Your task to perform on an android device: snooze an email in the gmail app Image 0: 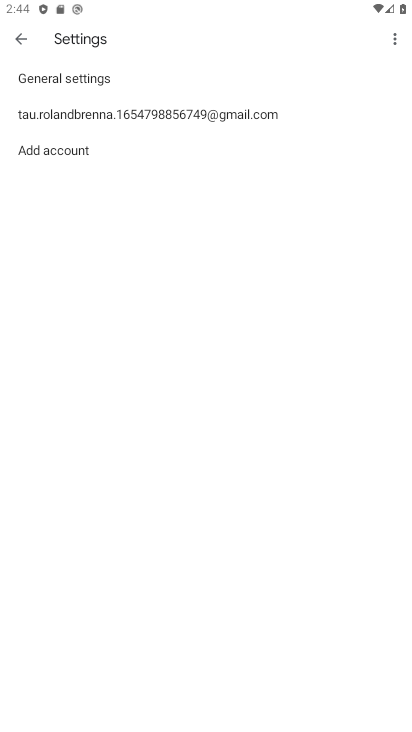
Step 0: drag from (159, 637) to (297, 9)
Your task to perform on an android device: snooze an email in the gmail app Image 1: 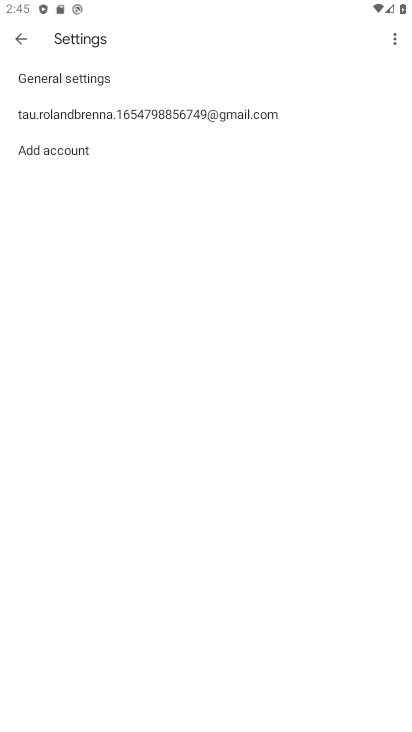
Step 1: press home button
Your task to perform on an android device: snooze an email in the gmail app Image 2: 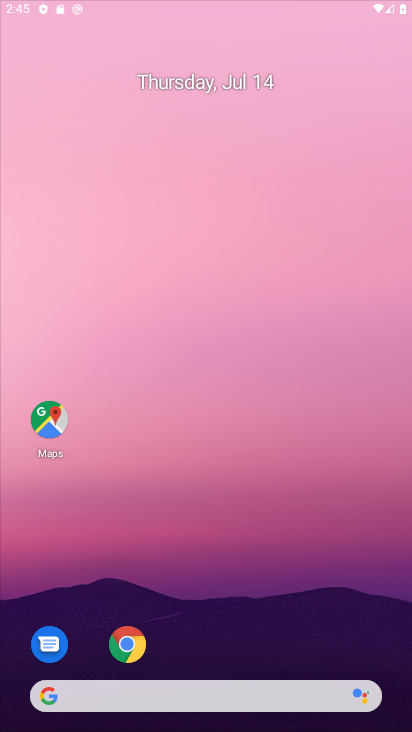
Step 2: drag from (212, 622) to (221, 237)
Your task to perform on an android device: snooze an email in the gmail app Image 3: 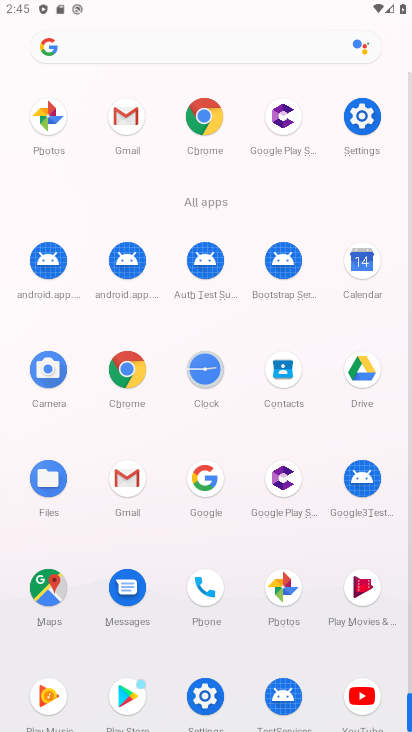
Step 3: drag from (238, 650) to (245, 171)
Your task to perform on an android device: snooze an email in the gmail app Image 4: 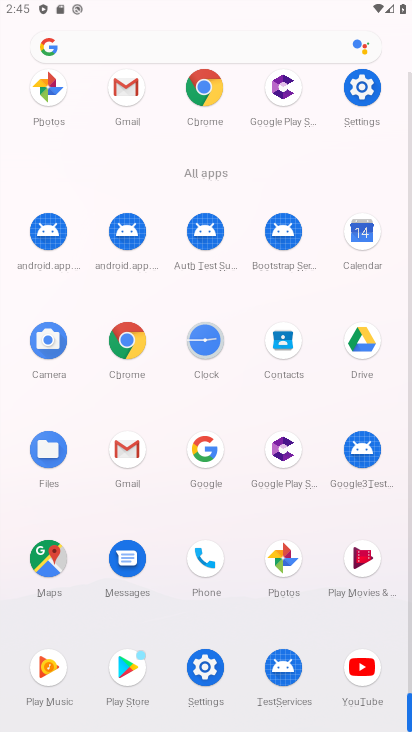
Step 4: click (128, 448)
Your task to perform on an android device: snooze an email in the gmail app Image 5: 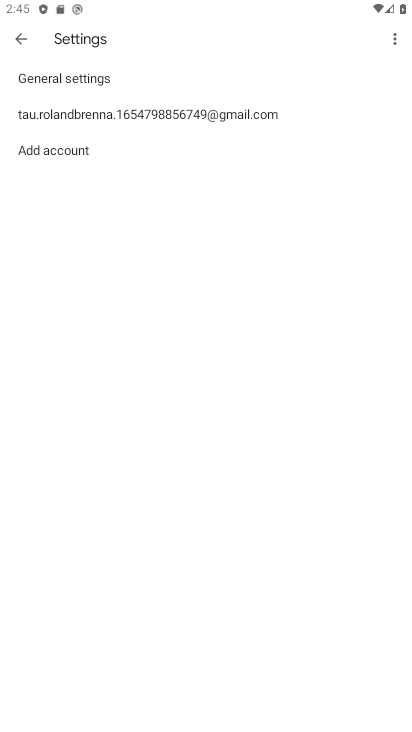
Step 5: drag from (193, 531) to (100, 255)
Your task to perform on an android device: snooze an email in the gmail app Image 6: 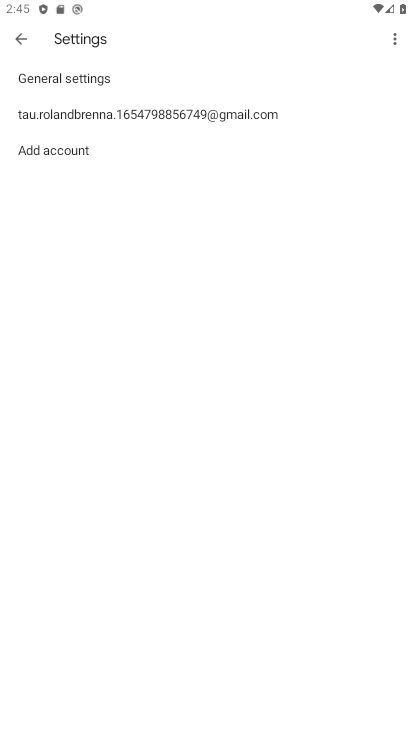
Step 6: drag from (167, 313) to (166, 131)
Your task to perform on an android device: snooze an email in the gmail app Image 7: 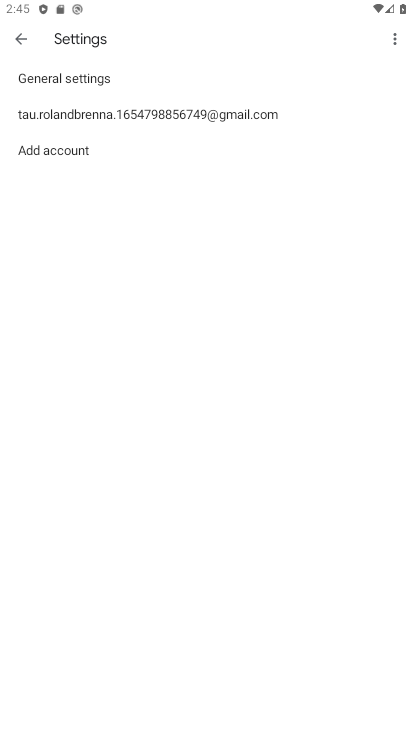
Step 7: drag from (198, 464) to (198, 200)
Your task to perform on an android device: snooze an email in the gmail app Image 8: 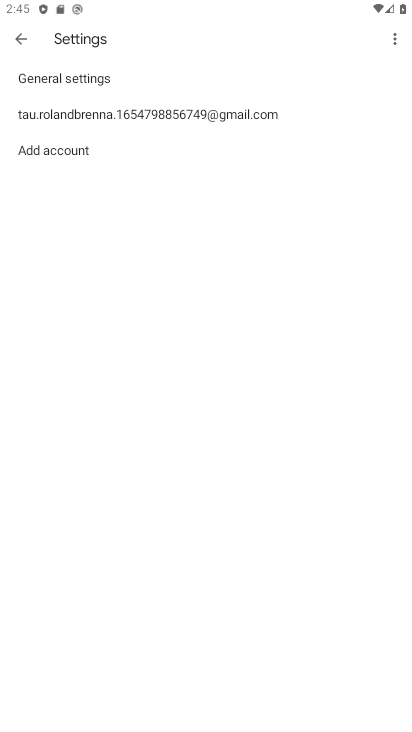
Step 8: click (101, 114)
Your task to perform on an android device: snooze an email in the gmail app Image 9: 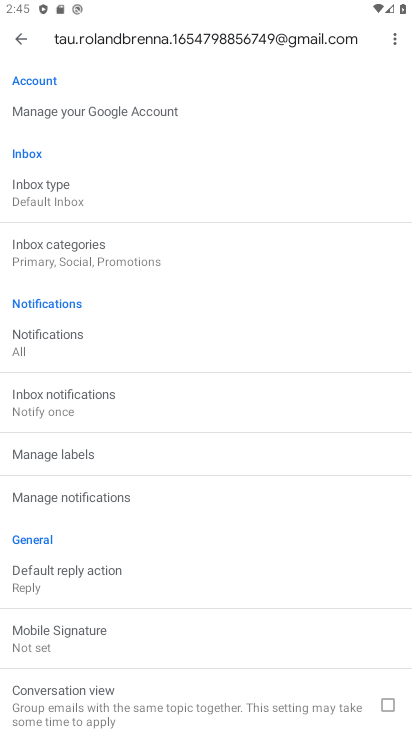
Step 9: click (17, 34)
Your task to perform on an android device: snooze an email in the gmail app Image 10: 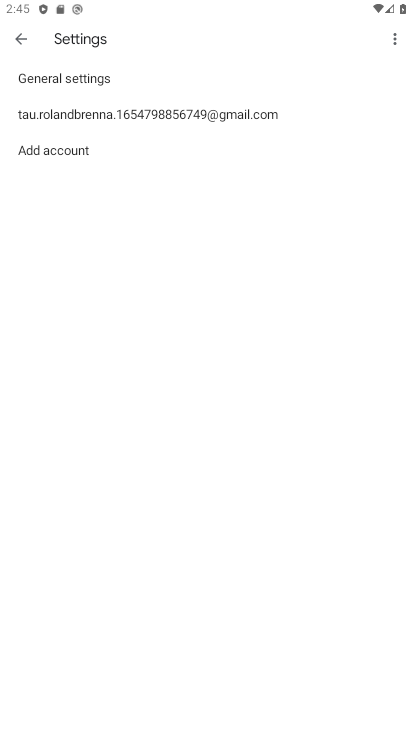
Step 10: click (23, 46)
Your task to perform on an android device: snooze an email in the gmail app Image 11: 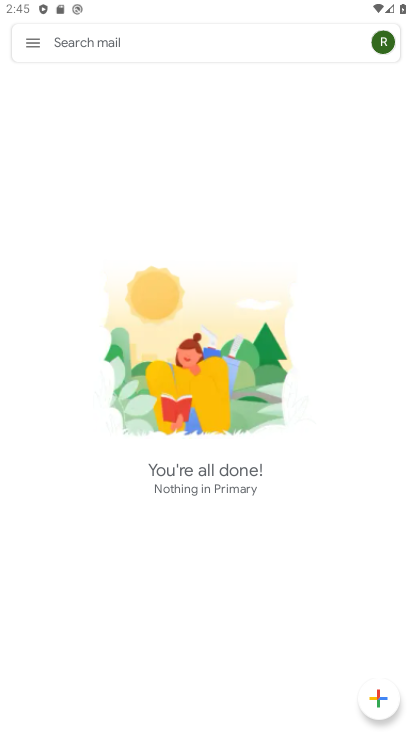
Step 11: click (23, 46)
Your task to perform on an android device: snooze an email in the gmail app Image 12: 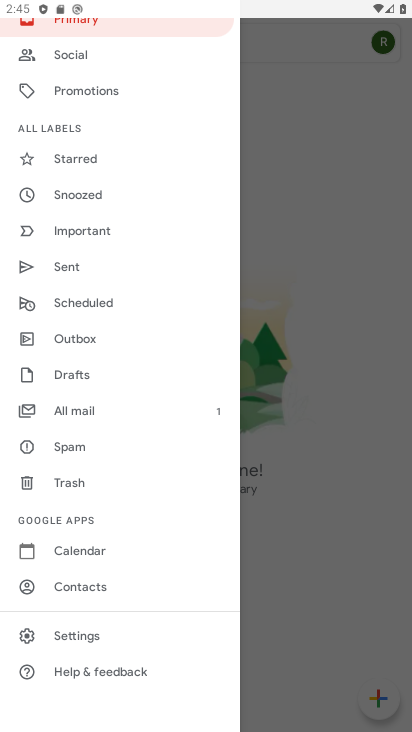
Step 12: click (269, 198)
Your task to perform on an android device: snooze an email in the gmail app Image 13: 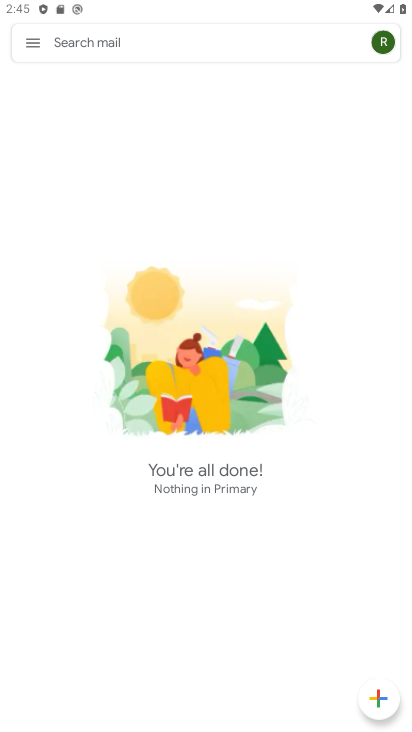
Step 13: task complete